Your task to perform on an android device: empty trash in google photos Image 0: 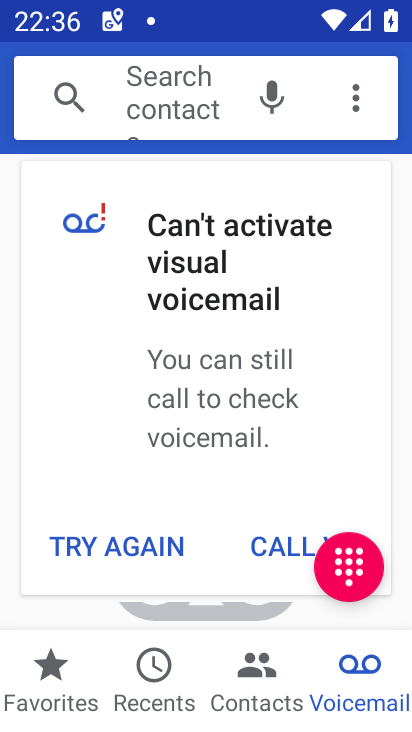
Step 0: press home button
Your task to perform on an android device: empty trash in google photos Image 1: 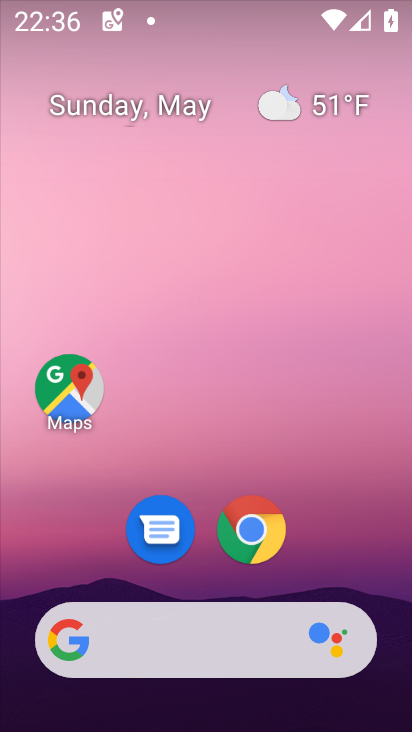
Step 1: drag from (218, 662) to (193, 252)
Your task to perform on an android device: empty trash in google photos Image 2: 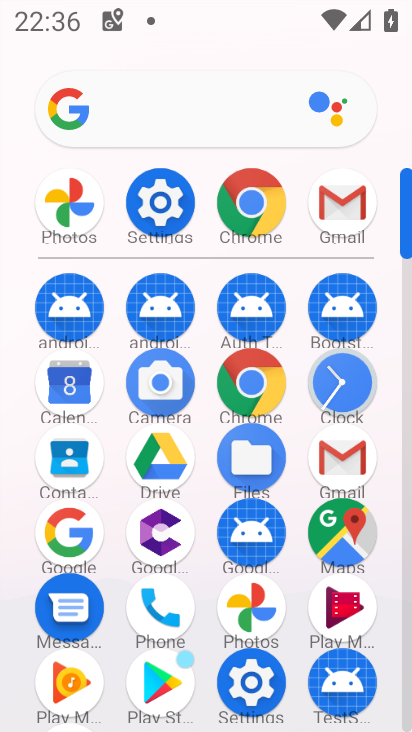
Step 2: click (254, 621)
Your task to perform on an android device: empty trash in google photos Image 3: 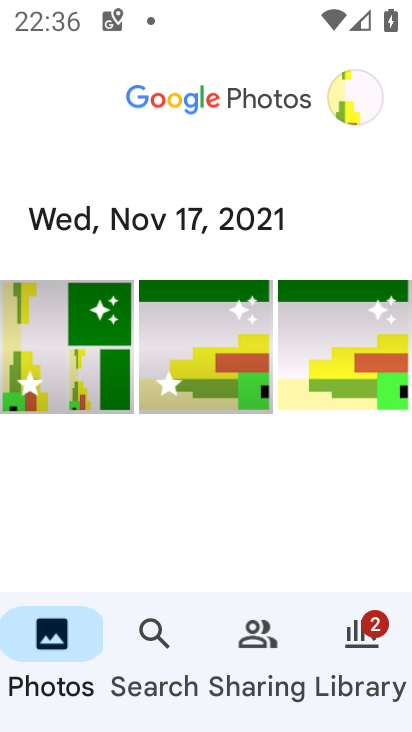
Step 3: click (361, 99)
Your task to perform on an android device: empty trash in google photos Image 4: 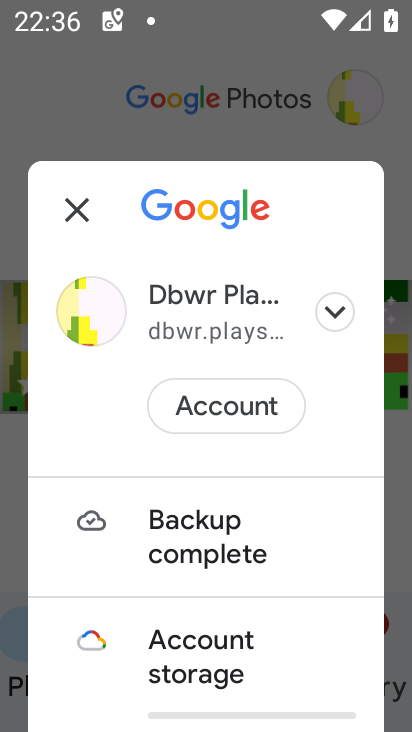
Step 4: drag from (214, 614) to (240, 210)
Your task to perform on an android device: empty trash in google photos Image 5: 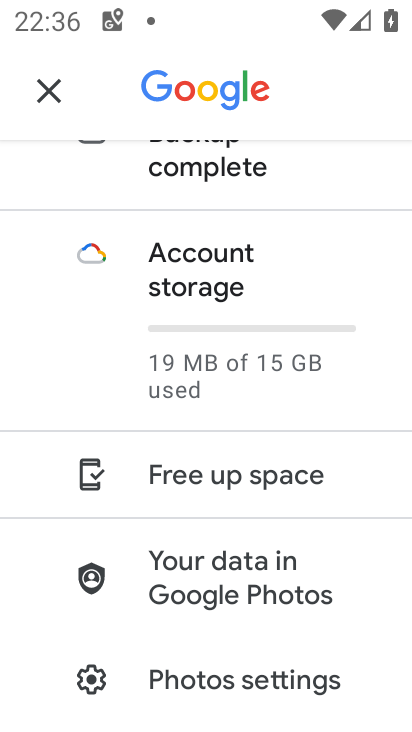
Step 5: press back button
Your task to perform on an android device: empty trash in google photos Image 6: 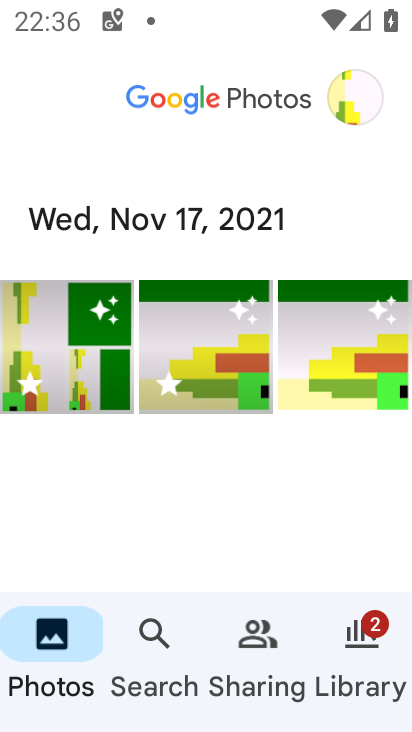
Step 6: click (344, 670)
Your task to perform on an android device: empty trash in google photos Image 7: 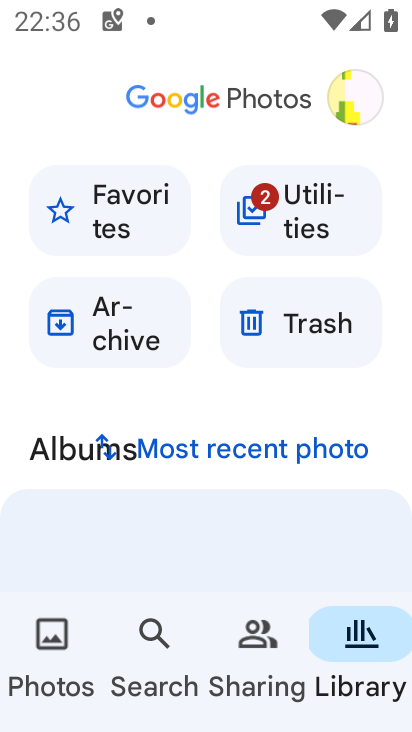
Step 7: click (295, 329)
Your task to perform on an android device: empty trash in google photos Image 8: 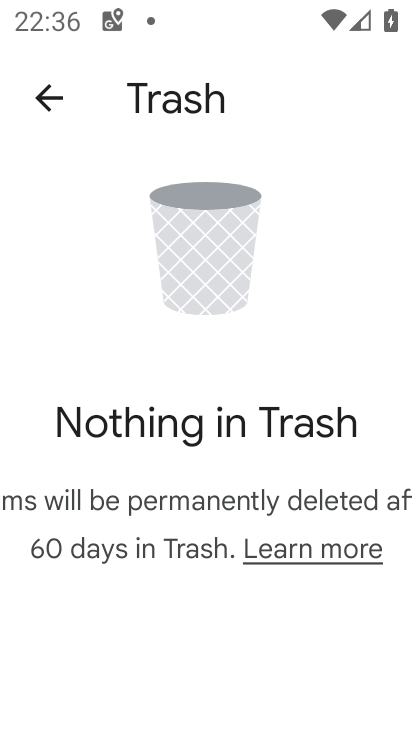
Step 8: task complete